Your task to perform on an android device: Open settings on Google Maps Image 0: 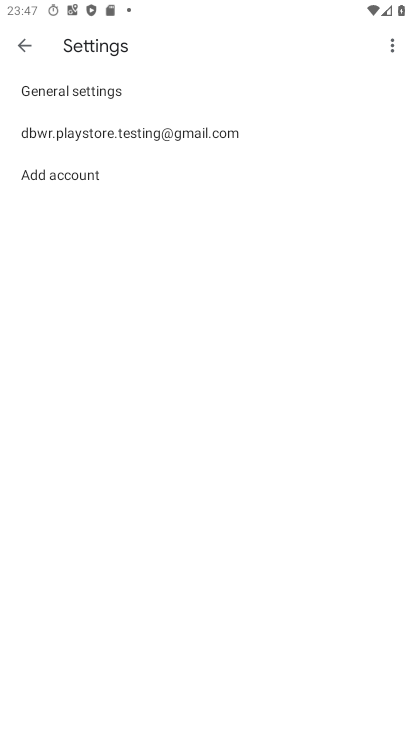
Step 0: press home button
Your task to perform on an android device: Open settings on Google Maps Image 1: 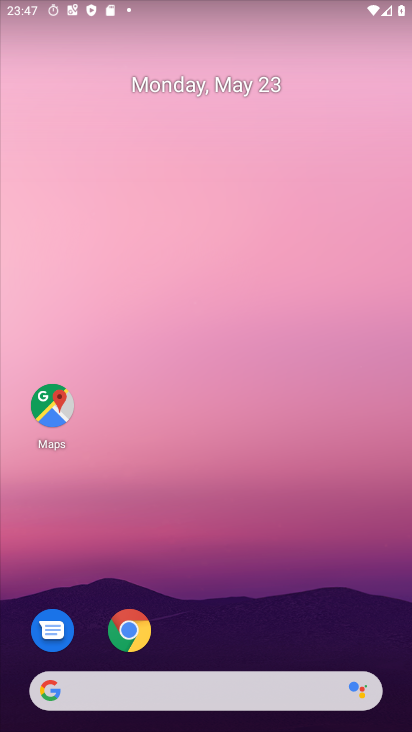
Step 1: click (61, 404)
Your task to perform on an android device: Open settings on Google Maps Image 2: 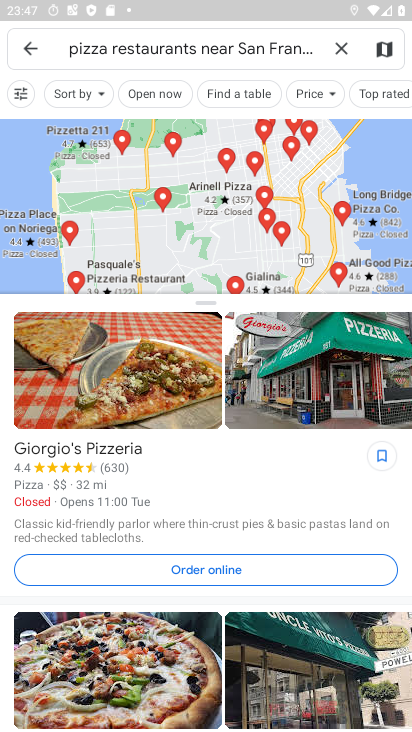
Step 2: click (341, 55)
Your task to perform on an android device: Open settings on Google Maps Image 3: 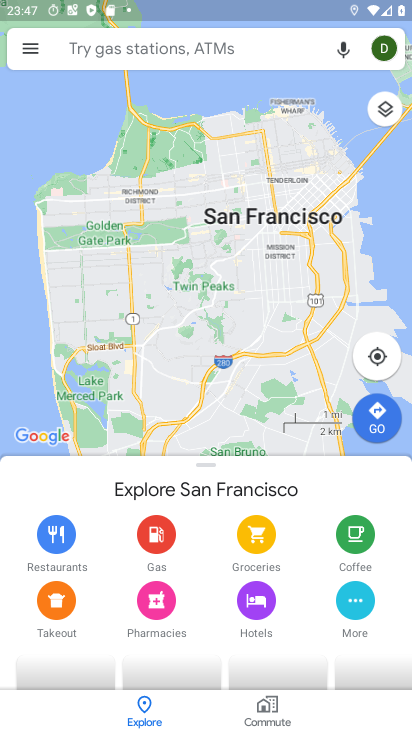
Step 3: click (27, 52)
Your task to perform on an android device: Open settings on Google Maps Image 4: 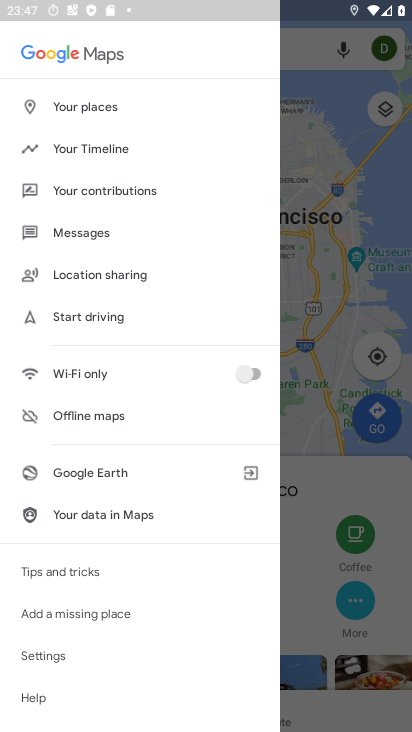
Step 4: click (40, 652)
Your task to perform on an android device: Open settings on Google Maps Image 5: 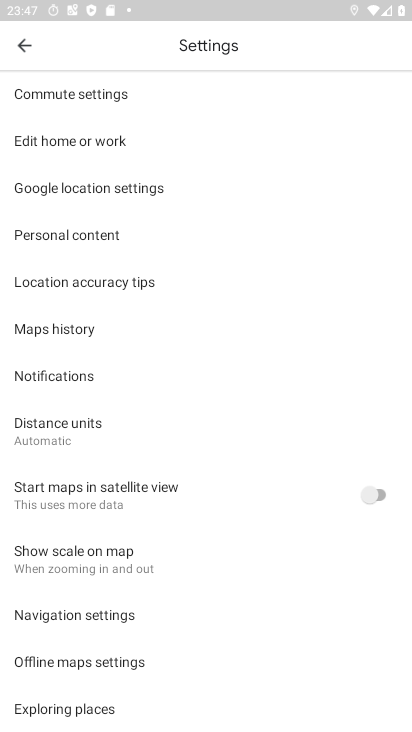
Step 5: task complete